Your task to perform on an android device: turn off javascript in the chrome app Image 0: 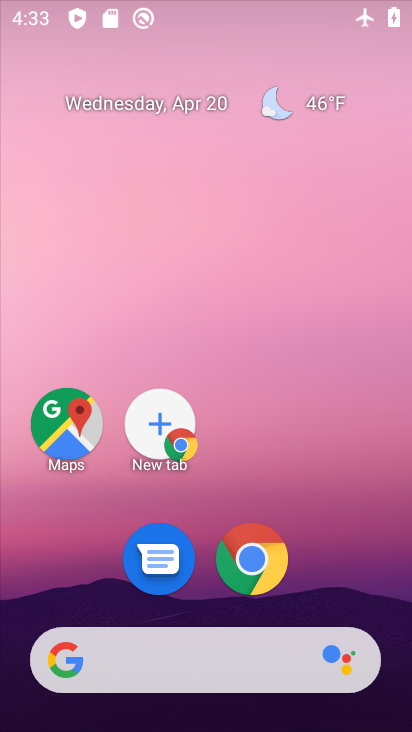
Step 0: drag from (366, 549) to (294, 309)
Your task to perform on an android device: turn off javascript in the chrome app Image 1: 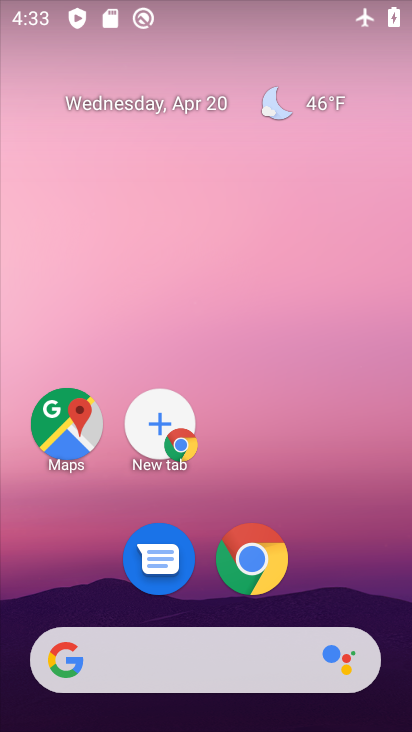
Step 1: click (284, 558)
Your task to perform on an android device: turn off javascript in the chrome app Image 2: 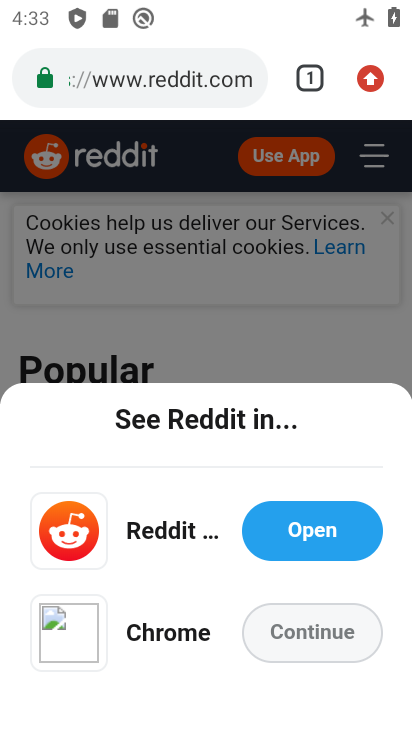
Step 2: click (371, 82)
Your task to perform on an android device: turn off javascript in the chrome app Image 3: 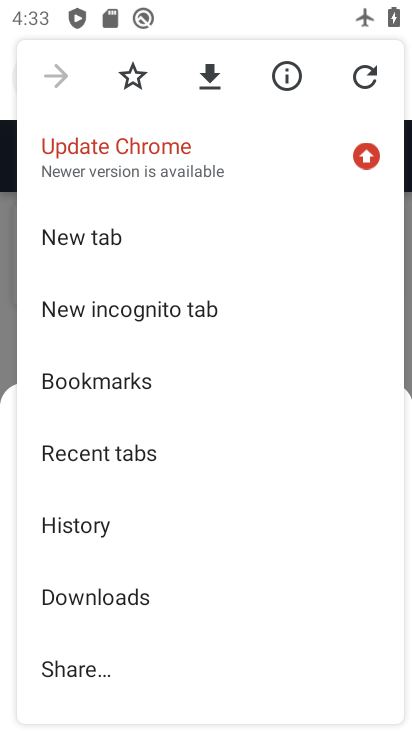
Step 3: drag from (181, 552) to (138, 316)
Your task to perform on an android device: turn off javascript in the chrome app Image 4: 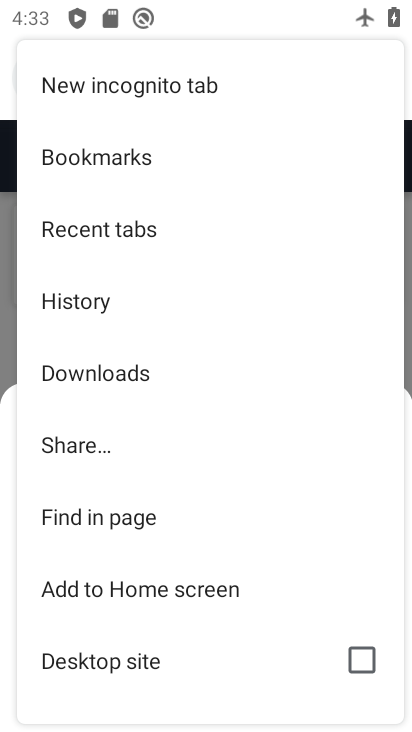
Step 4: drag from (131, 522) to (148, 169)
Your task to perform on an android device: turn off javascript in the chrome app Image 5: 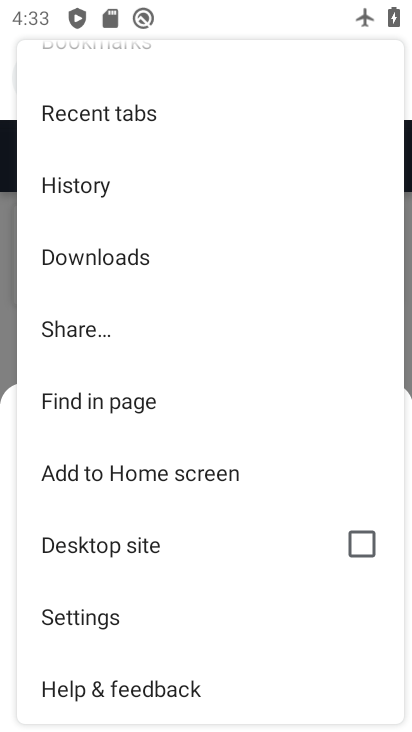
Step 5: click (194, 626)
Your task to perform on an android device: turn off javascript in the chrome app Image 6: 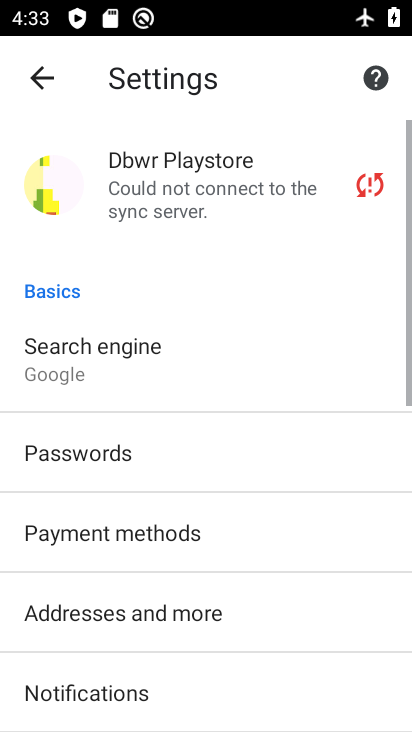
Step 6: drag from (194, 626) to (210, 164)
Your task to perform on an android device: turn off javascript in the chrome app Image 7: 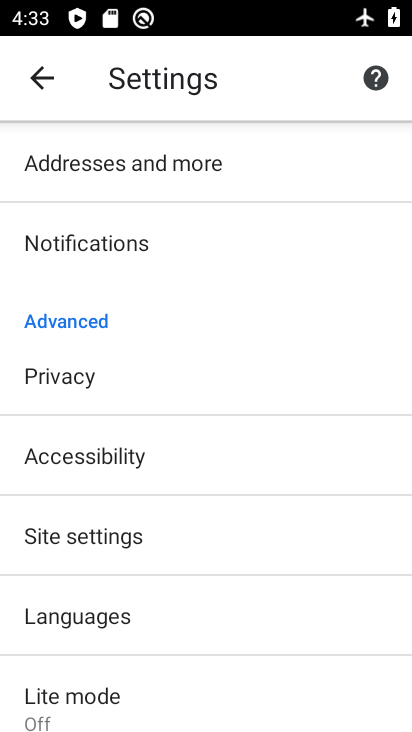
Step 7: click (220, 563)
Your task to perform on an android device: turn off javascript in the chrome app Image 8: 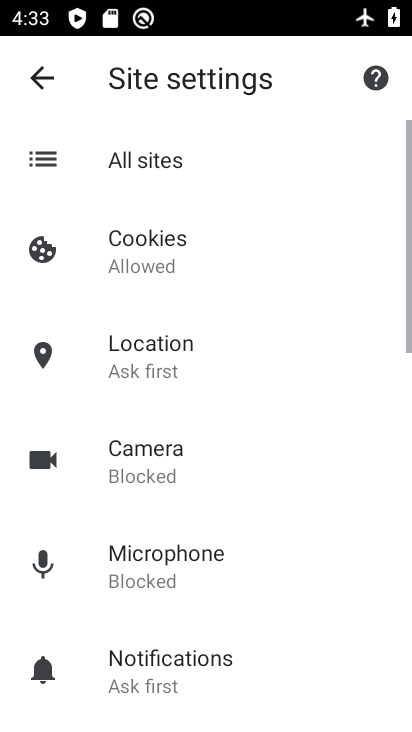
Step 8: drag from (220, 624) to (205, 290)
Your task to perform on an android device: turn off javascript in the chrome app Image 9: 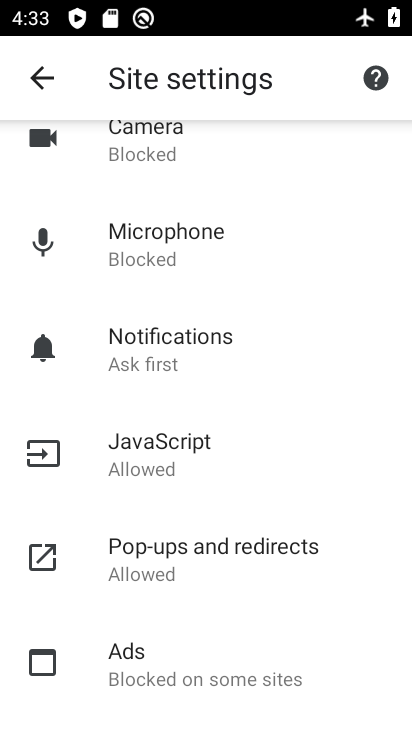
Step 9: click (234, 466)
Your task to perform on an android device: turn off javascript in the chrome app Image 10: 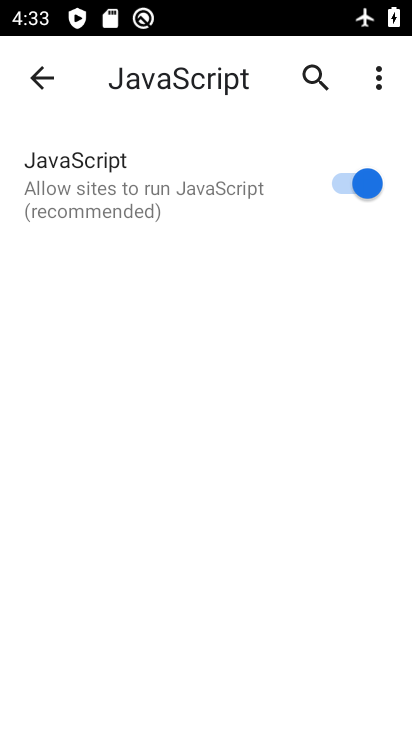
Step 10: task complete